Your task to perform on an android device: open app "McDonald's" (install if not already installed) Image 0: 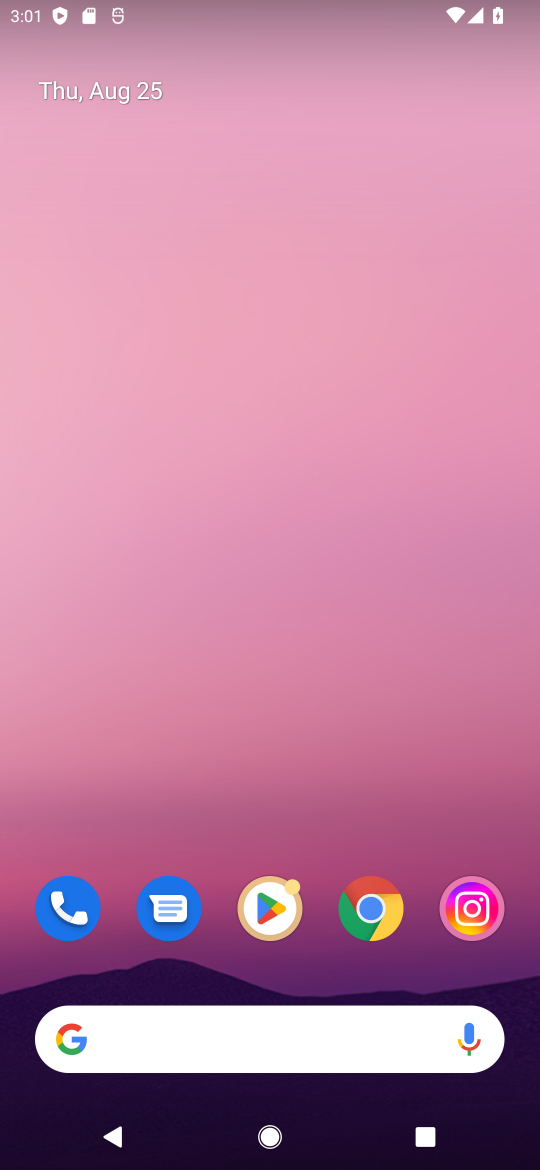
Step 0: click (259, 906)
Your task to perform on an android device: open app "McDonald's" (install if not already installed) Image 1: 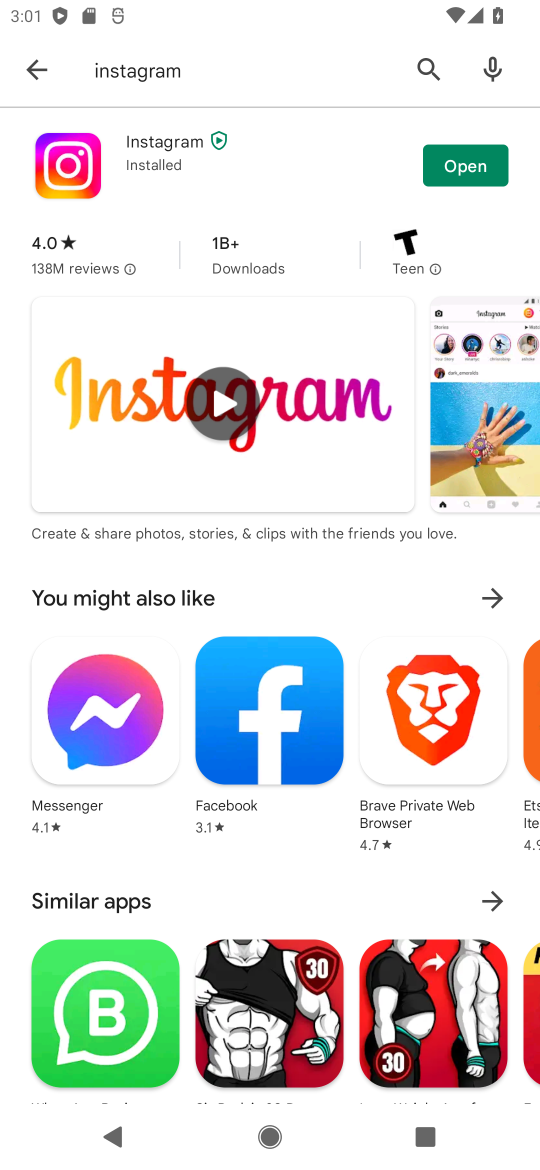
Step 1: click (436, 54)
Your task to perform on an android device: open app "McDonald's" (install if not already installed) Image 2: 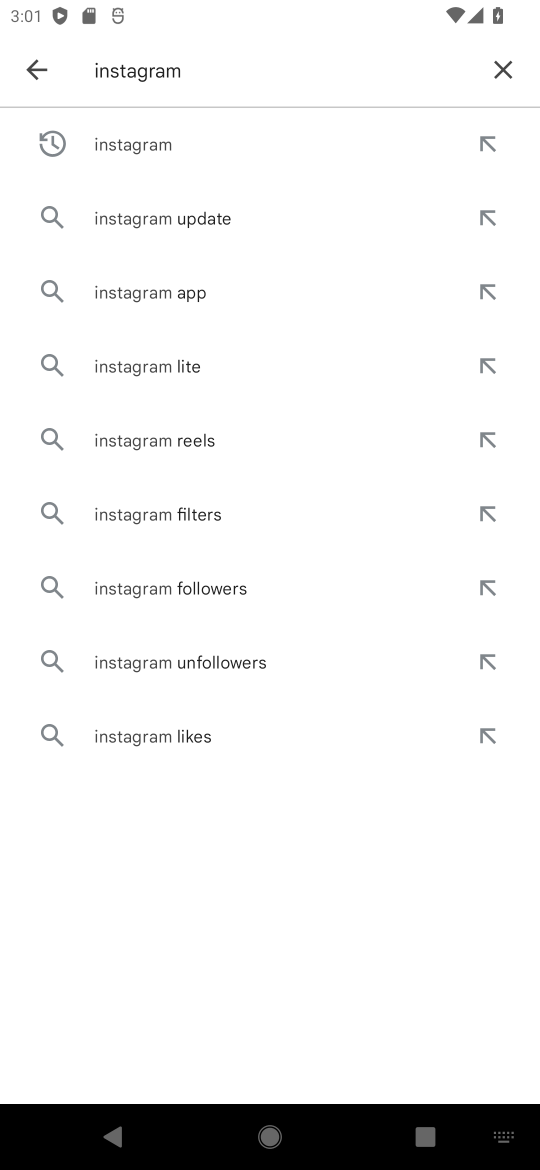
Step 2: click (514, 71)
Your task to perform on an android device: open app "McDonald's" (install if not already installed) Image 3: 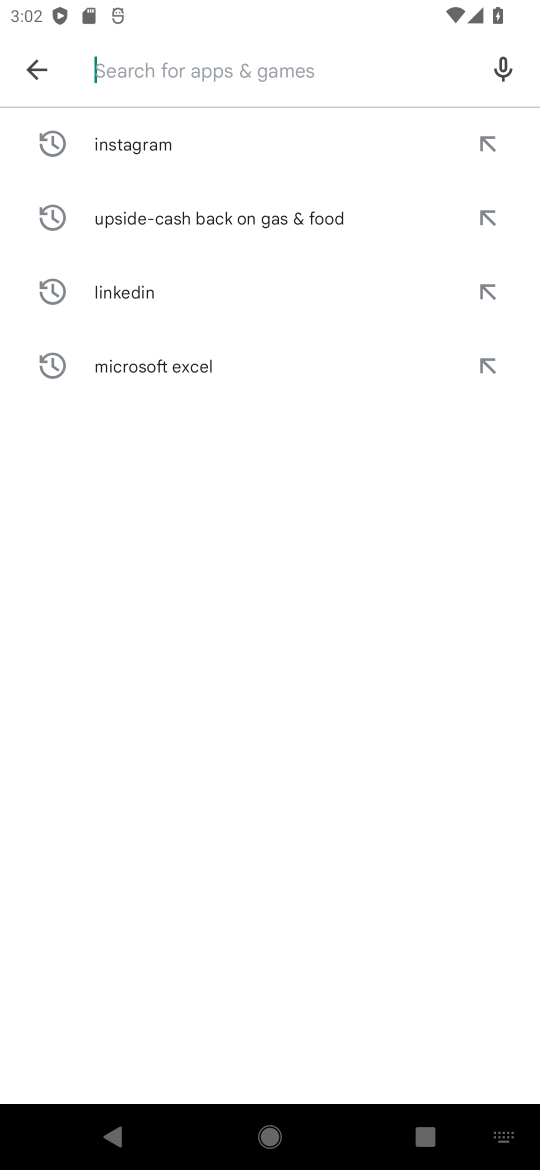
Step 3: type "McDonald's"
Your task to perform on an android device: open app "McDonald's" (install if not already installed) Image 4: 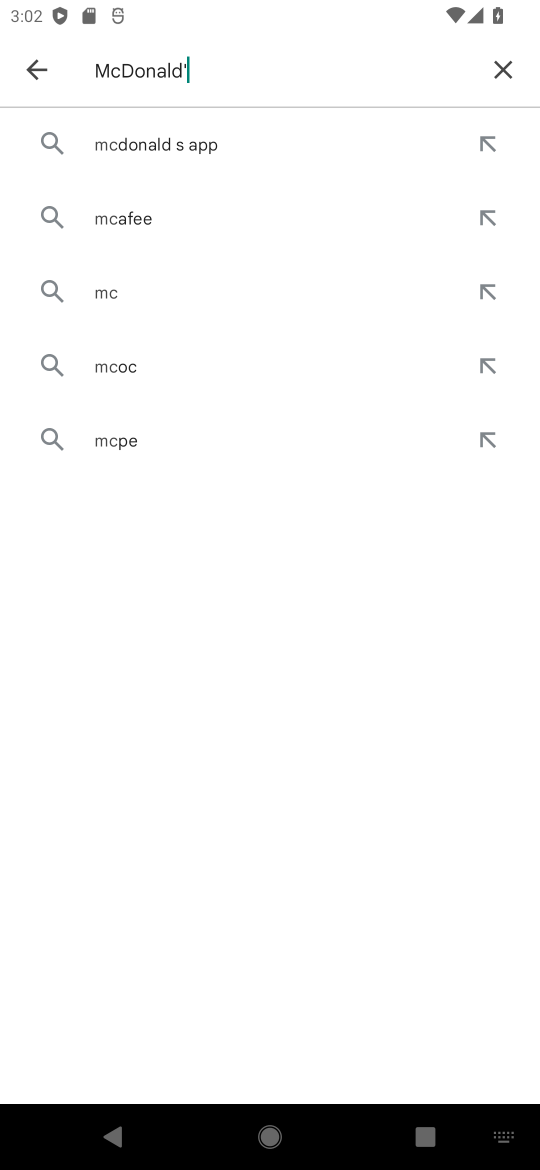
Step 4: type ""
Your task to perform on an android device: open app "McDonald's" (install if not already installed) Image 5: 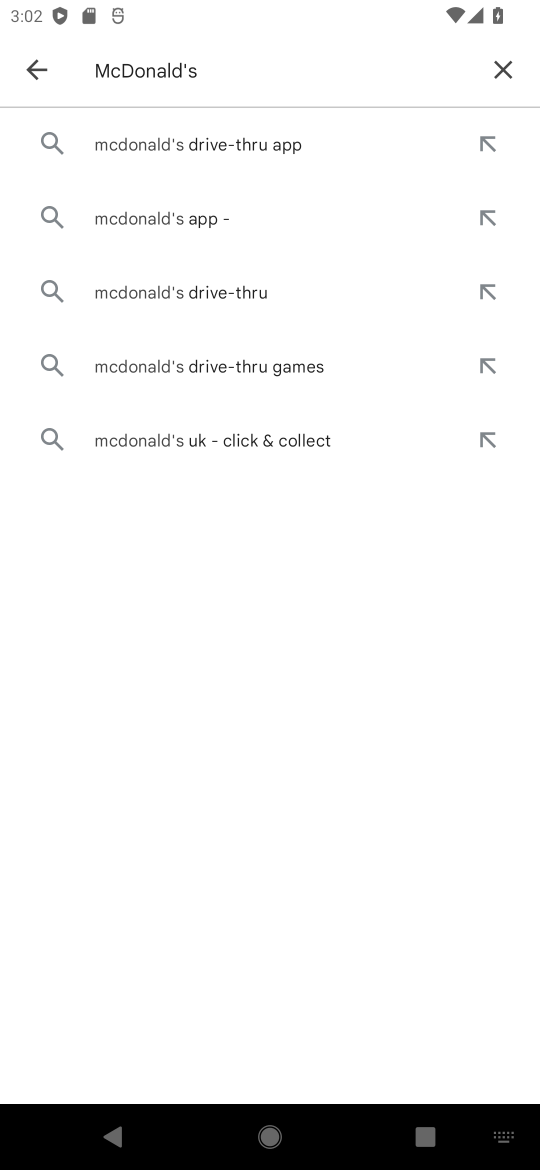
Step 5: click (267, 128)
Your task to perform on an android device: open app "McDonald's" (install if not already installed) Image 6: 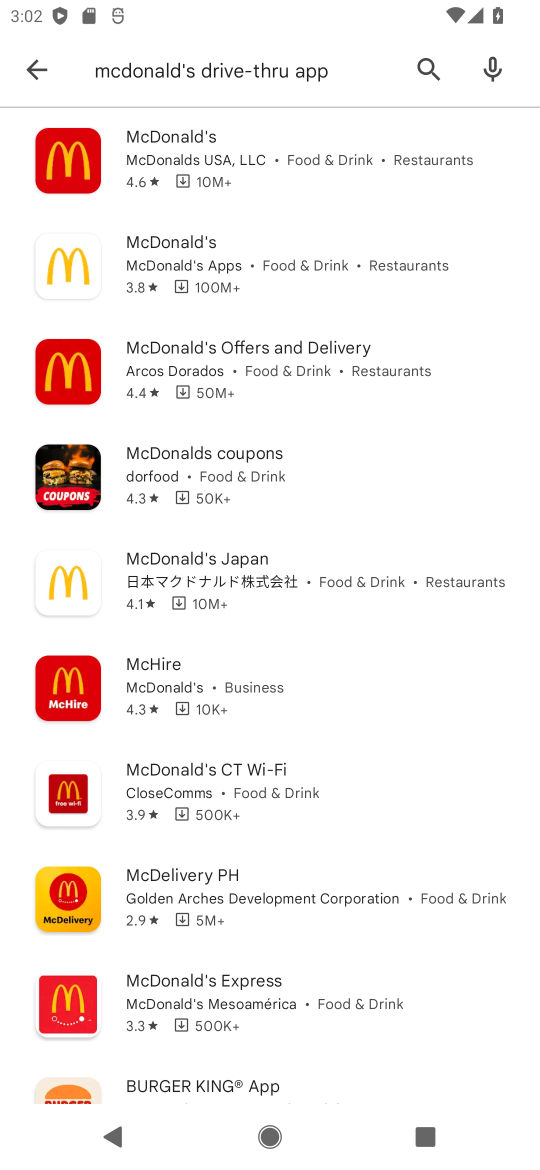
Step 6: click (274, 190)
Your task to perform on an android device: open app "McDonald's" (install if not already installed) Image 7: 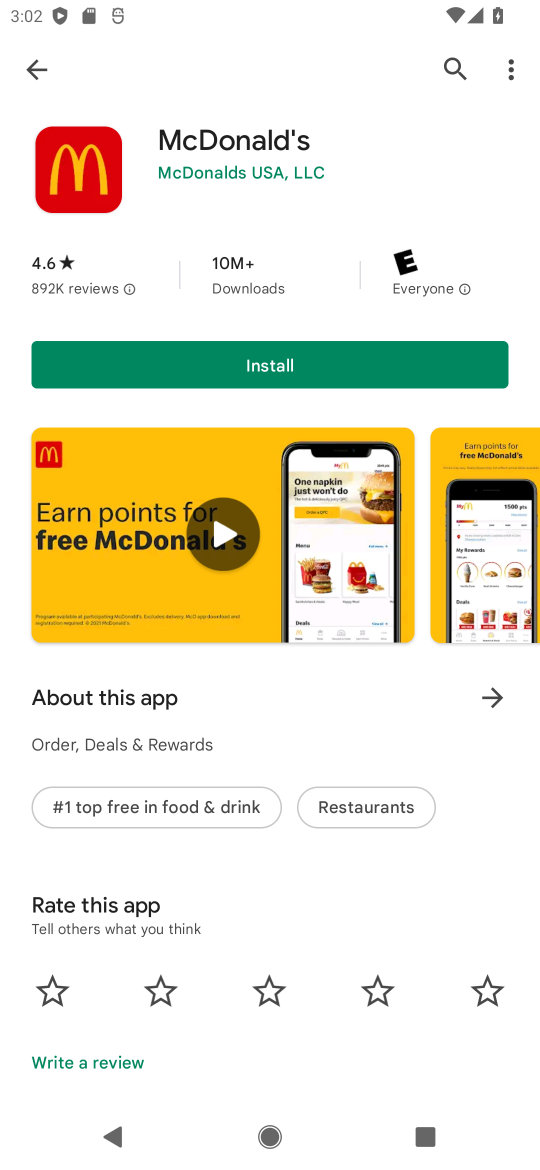
Step 7: click (357, 364)
Your task to perform on an android device: open app "McDonald's" (install if not already installed) Image 8: 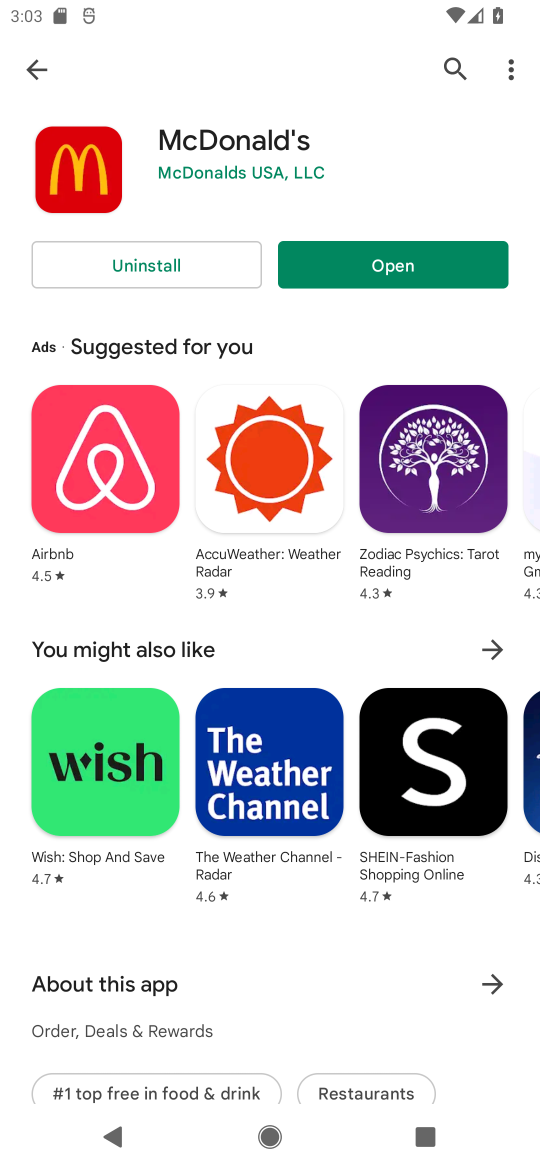
Step 8: click (395, 255)
Your task to perform on an android device: open app "McDonald's" (install if not already installed) Image 9: 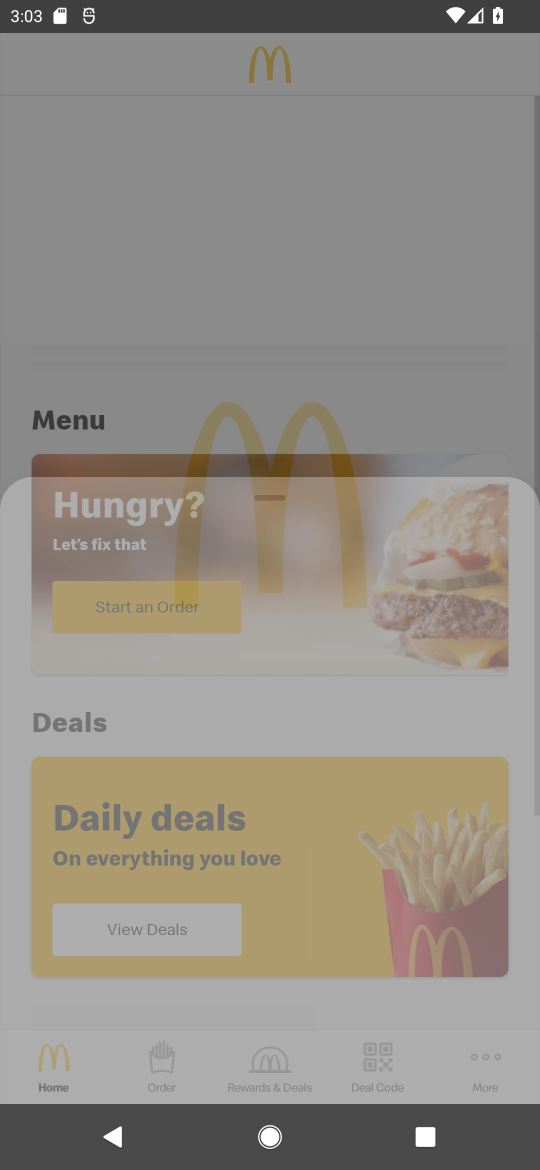
Step 9: task complete